Your task to perform on an android device: Open the calendar app, open the side menu, and click the "Day" option Image 0: 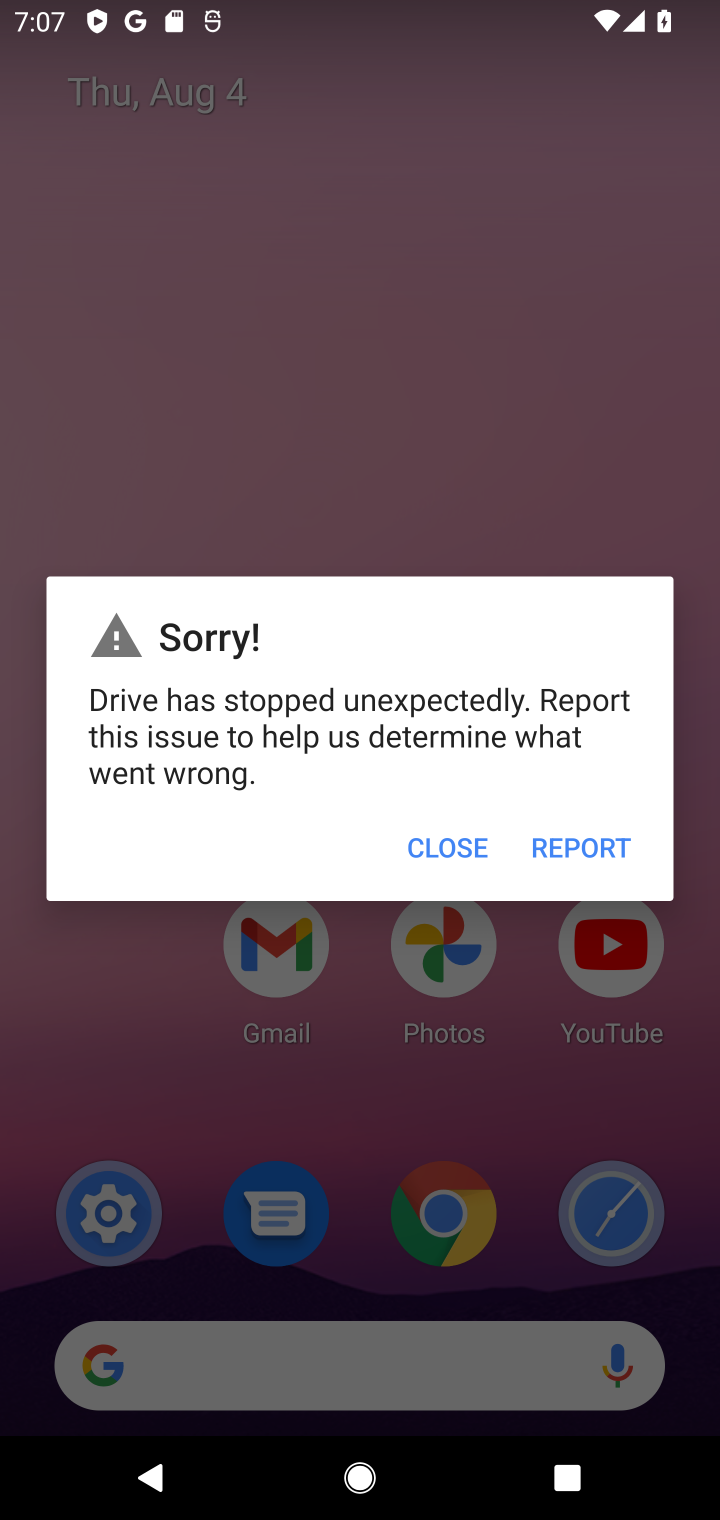
Step 0: click (463, 840)
Your task to perform on an android device: Open the calendar app, open the side menu, and click the "Day" option Image 1: 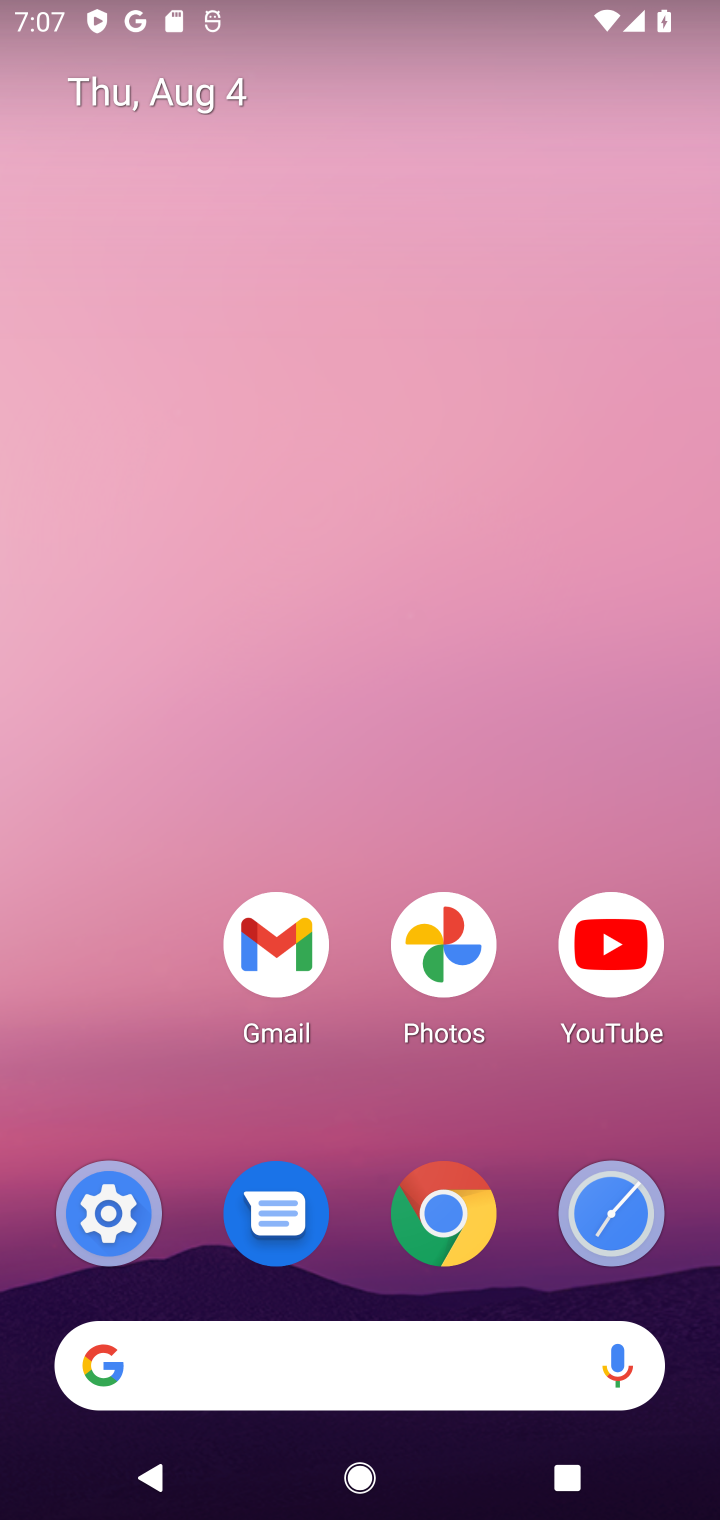
Step 1: drag from (189, 1128) to (276, 14)
Your task to perform on an android device: Open the calendar app, open the side menu, and click the "Day" option Image 2: 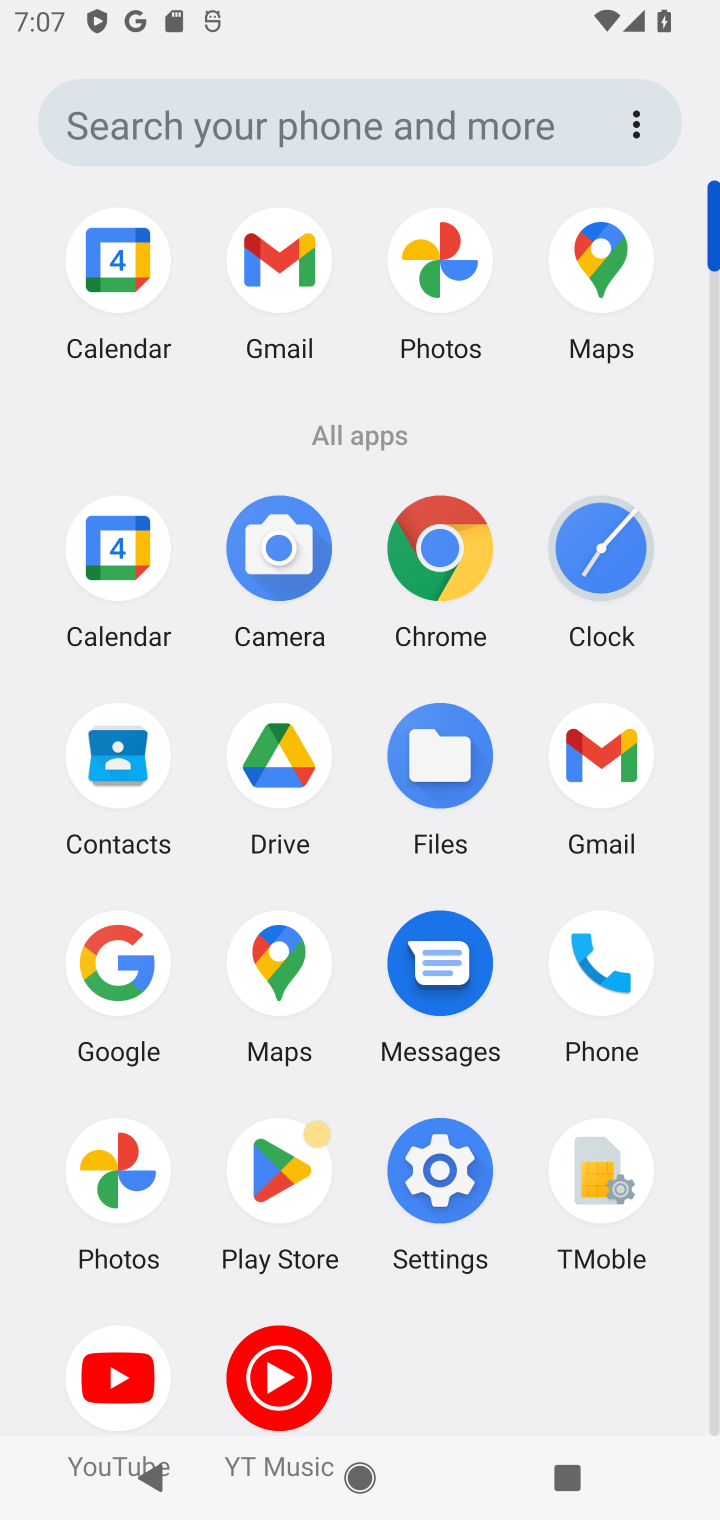
Step 2: click (117, 598)
Your task to perform on an android device: Open the calendar app, open the side menu, and click the "Day" option Image 3: 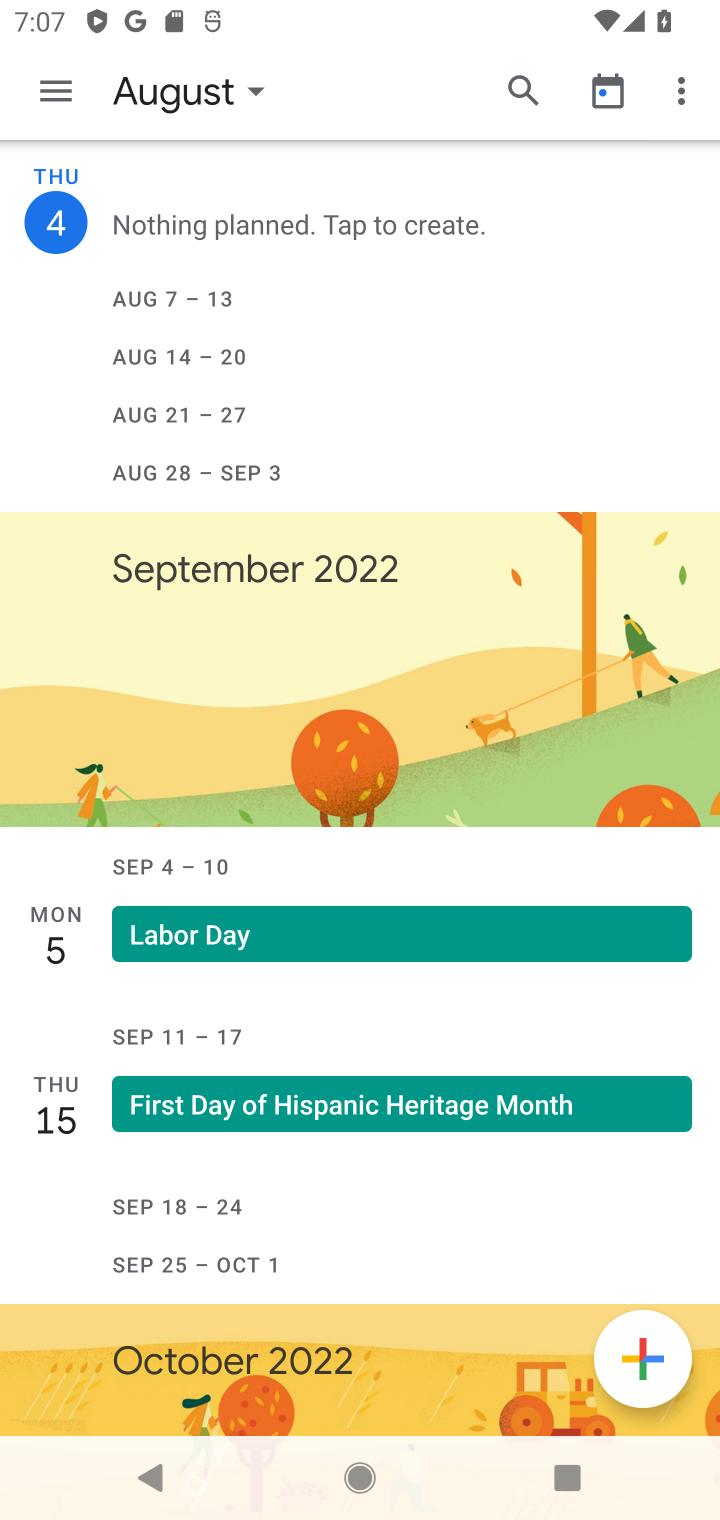
Step 3: click (45, 91)
Your task to perform on an android device: Open the calendar app, open the side menu, and click the "Day" option Image 4: 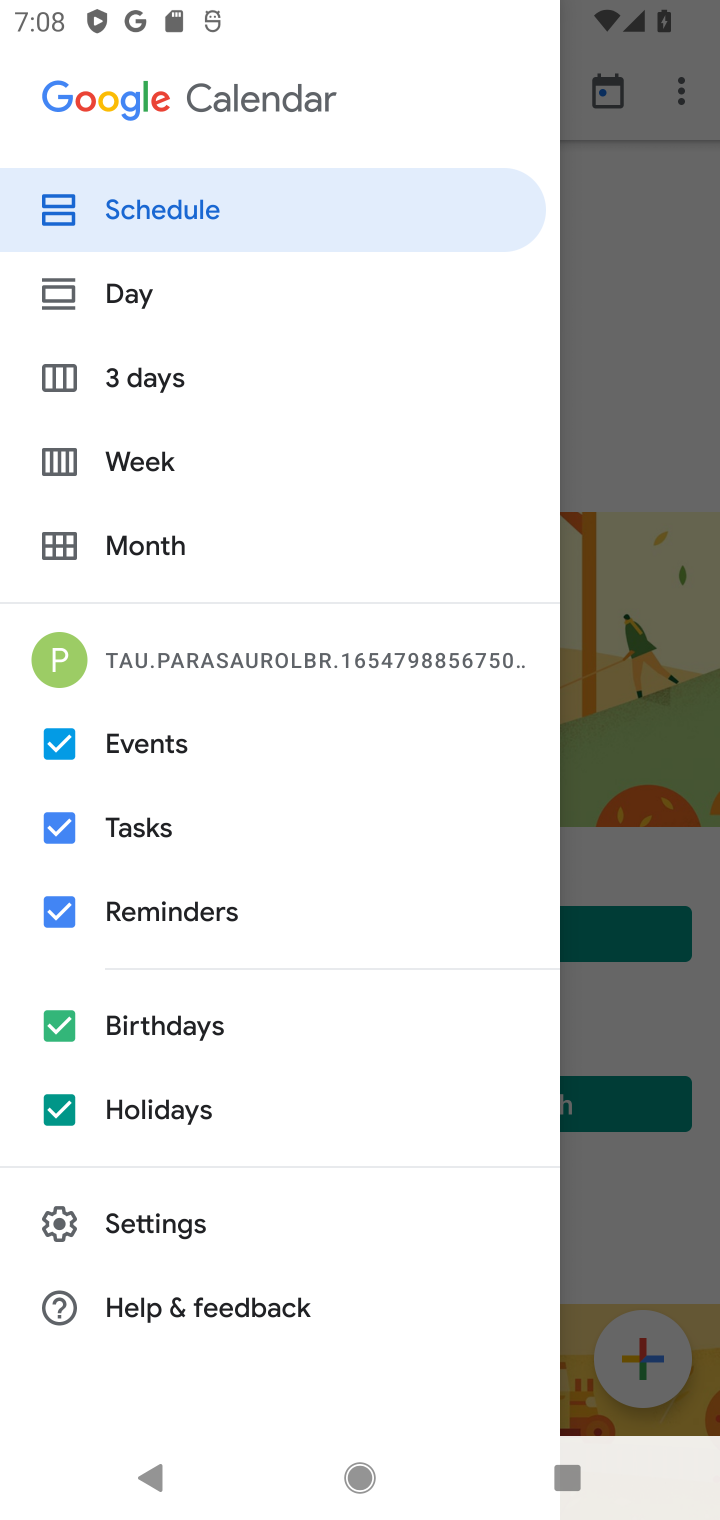
Step 4: click (166, 291)
Your task to perform on an android device: Open the calendar app, open the side menu, and click the "Day" option Image 5: 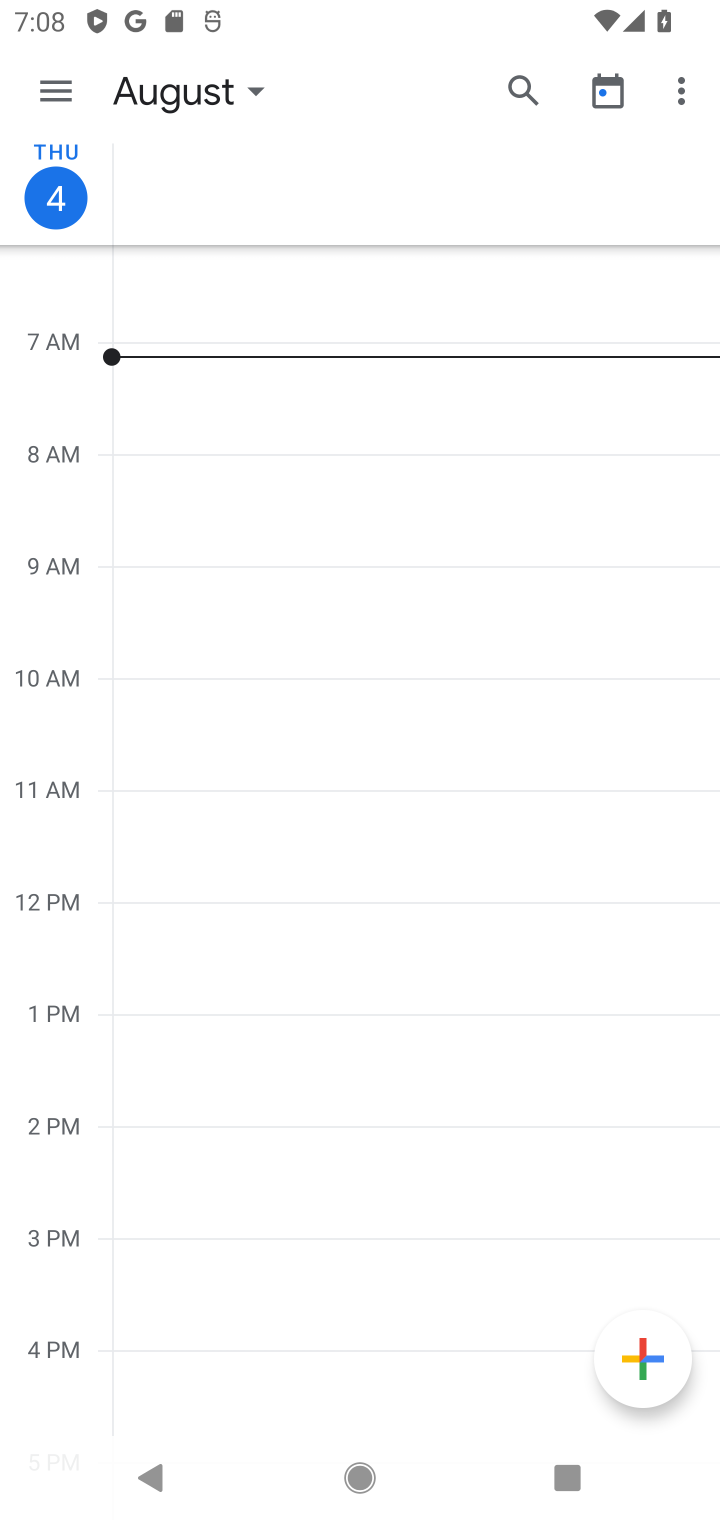
Step 5: task complete